Your task to perform on an android device: Go to sound settings Image 0: 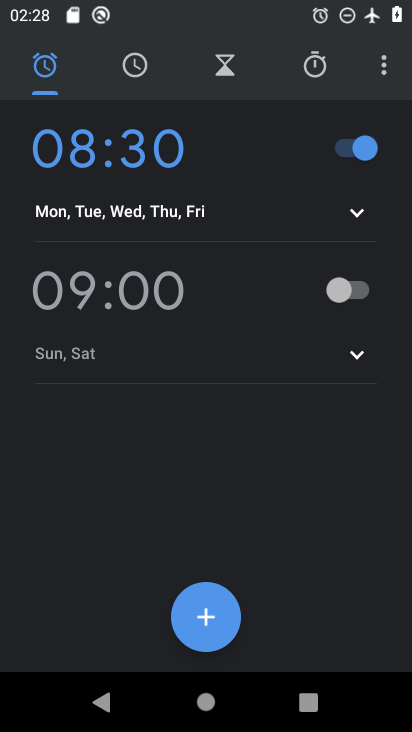
Step 0: press home button
Your task to perform on an android device: Go to sound settings Image 1: 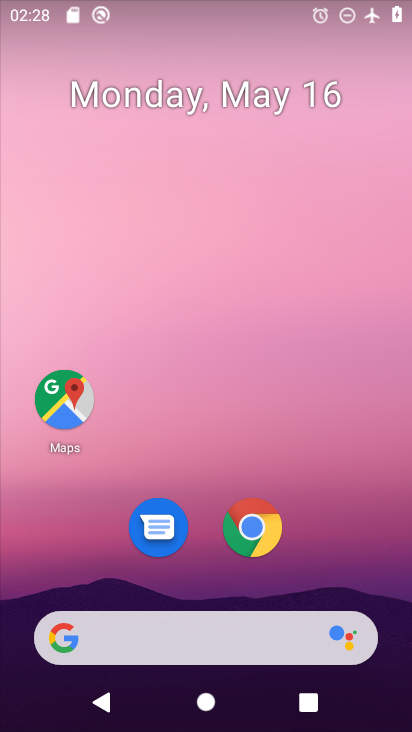
Step 1: drag from (318, 551) to (303, 76)
Your task to perform on an android device: Go to sound settings Image 2: 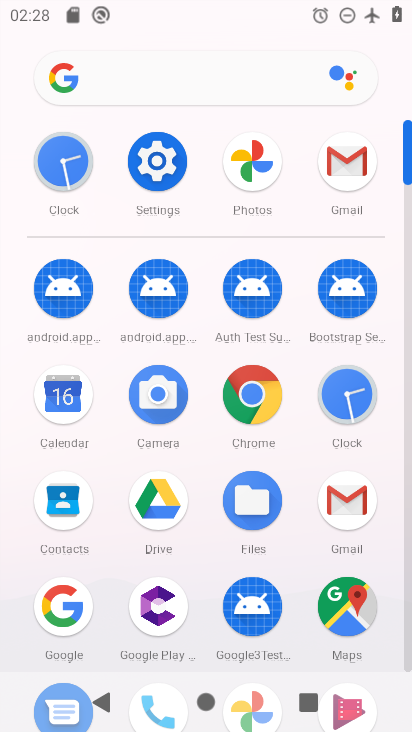
Step 2: click (158, 151)
Your task to perform on an android device: Go to sound settings Image 3: 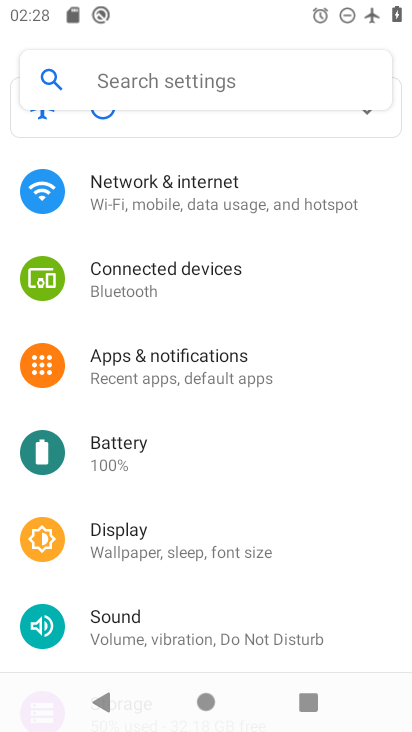
Step 3: click (155, 620)
Your task to perform on an android device: Go to sound settings Image 4: 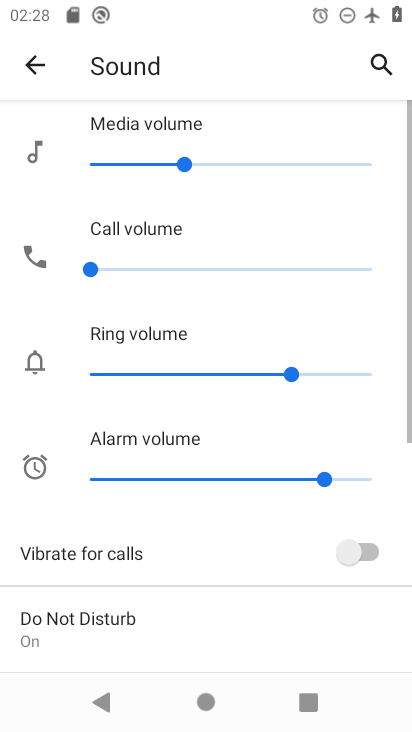
Step 4: task complete